Your task to perform on an android device: turn notification dots on Image 0: 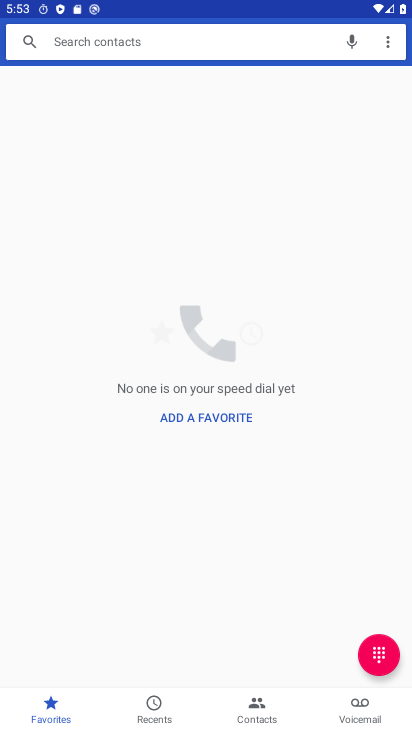
Step 0: press back button
Your task to perform on an android device: turn notification dots on Image 1: 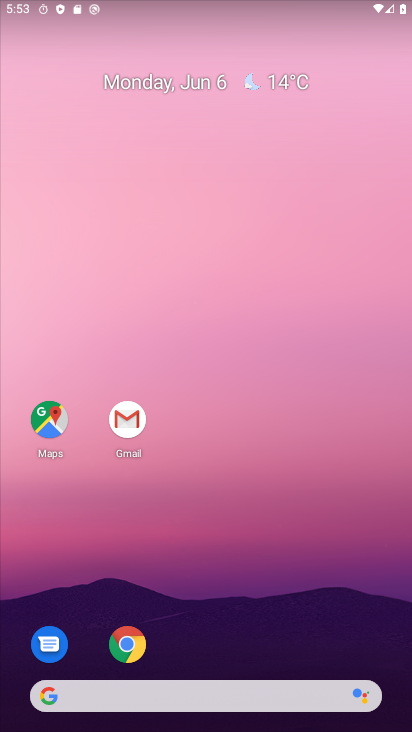
Step 1: drag from (286, 691) to (188, 217)
Your task to perform on an android device: turn notification dots on Image 2: 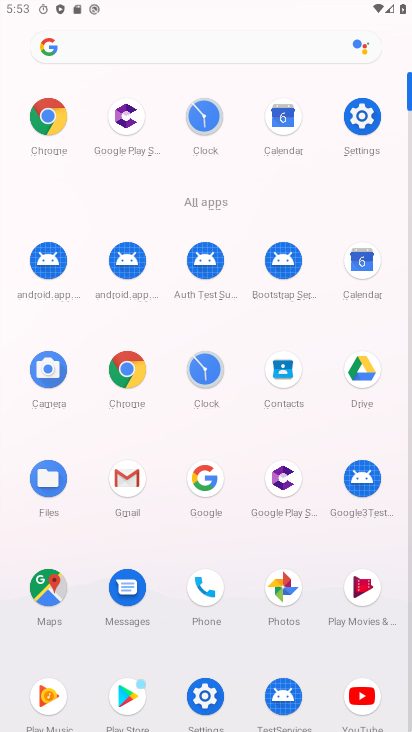
Step 2: click (363, 109)
Your task to perform on an android device: turn notification dots on Image 3: 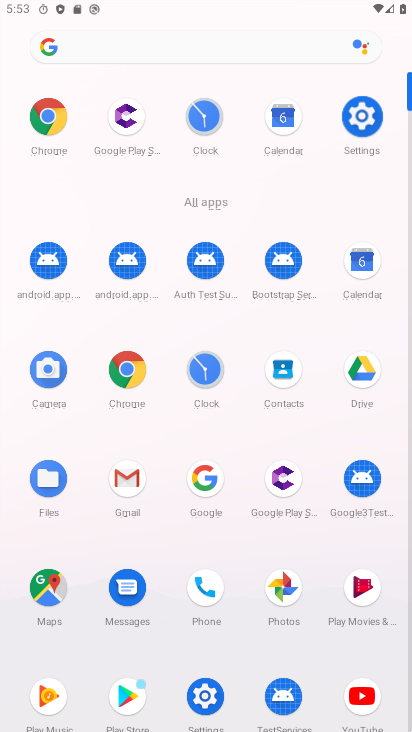
Step 3: click (363, 109)
Your task to perform on an android device: turn notification dots on Image 4: 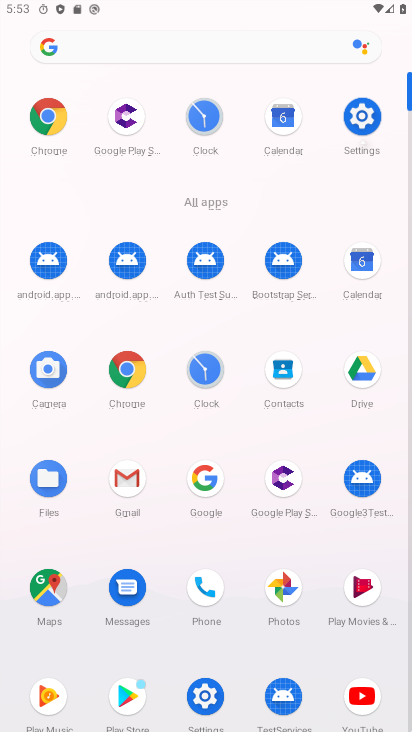
Step 4: click (362, 110)
Your task to perform on an android device: turn notification dots on Image 5: 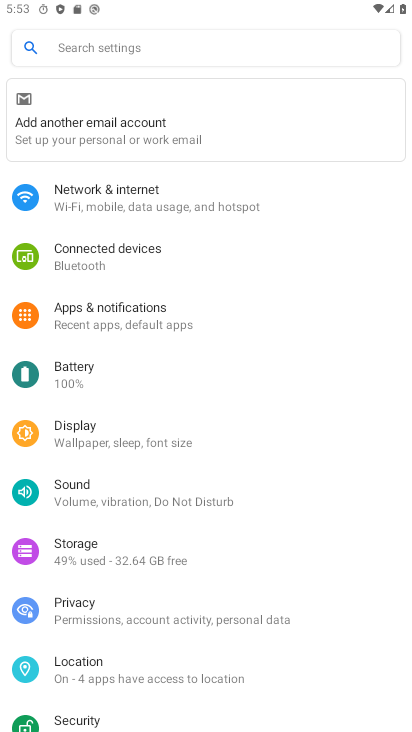
Step 5: click (102, 331)
Your task to perform on an android device: turn notification dots on Image 6: 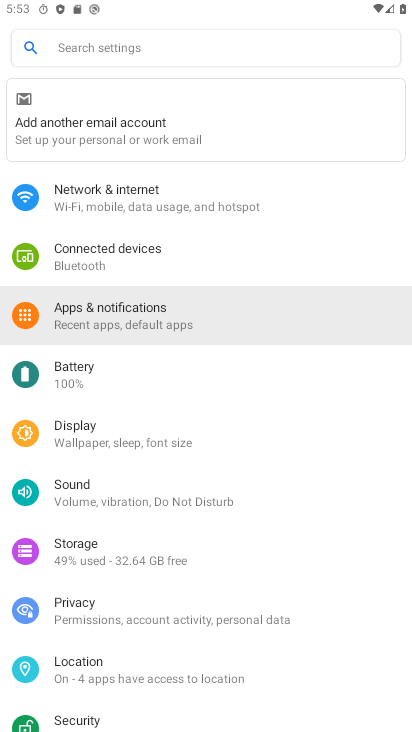
Step 6: click (104, 325)
Your task to perform on an android device: turn notification dots on Image 7: 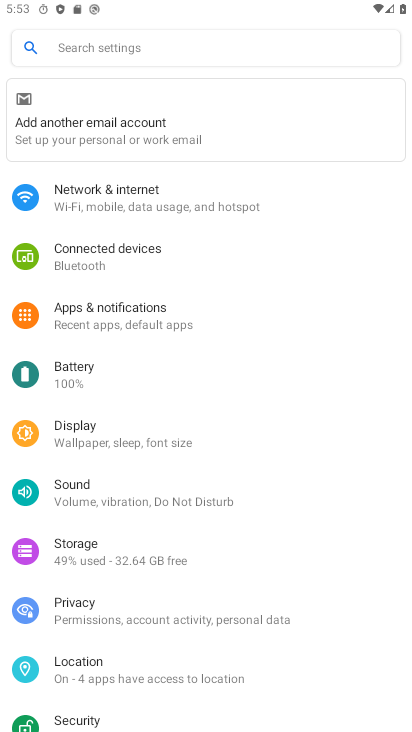
Step 7: click (105, 325)
Your task to perform on an android device: turn notification dots on Image 8: 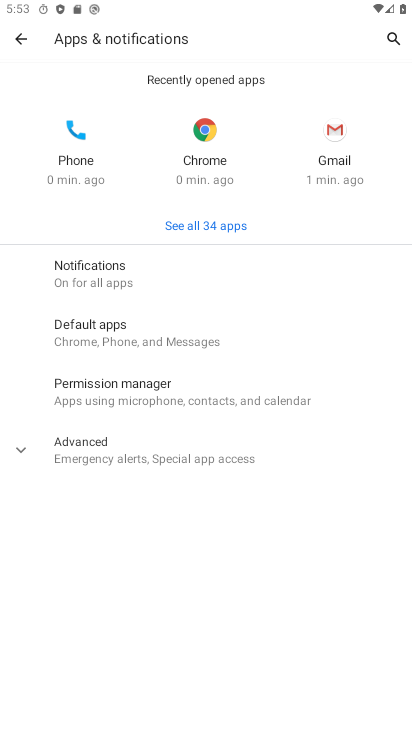
Step 8: click (125, 313)
Your task to perform on an android device: turn notification dots on Image 9: 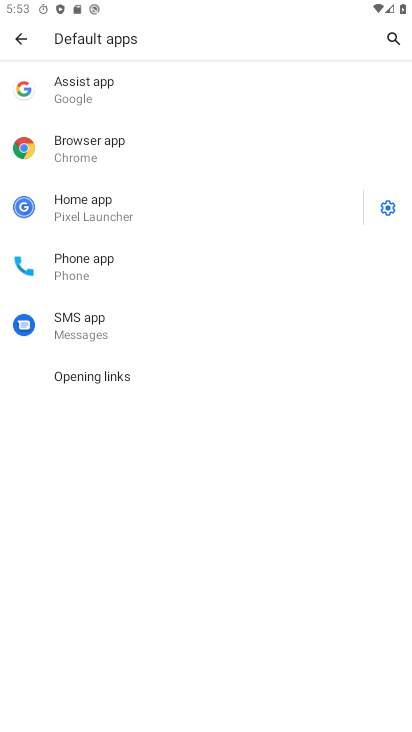
Step 9: click (17, 35)
Your task to perform on an android device: turn notification dots on Image 10: 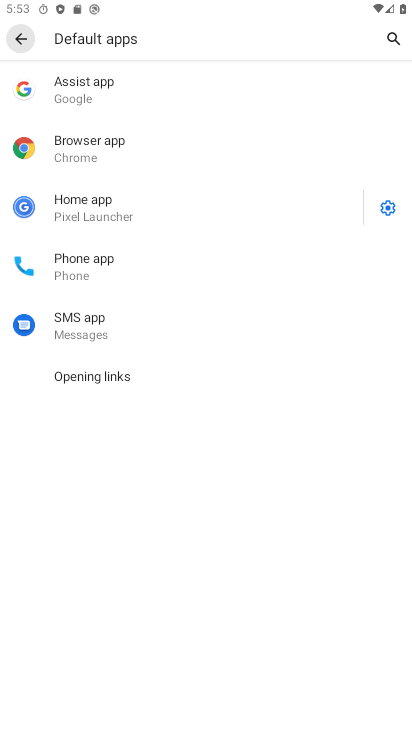
Step 10: click (25, 32)
Your task to perform on an android device: turn notification dots on Image 11: 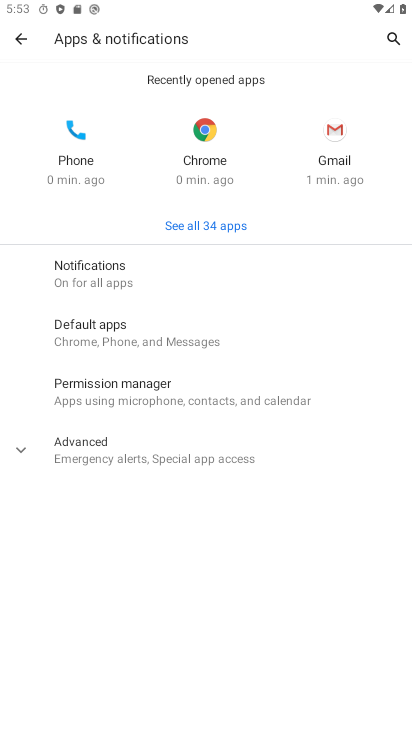
Step 11: click (97, 270)
Your task to perform on an android device: turn notification dots on Image 12: 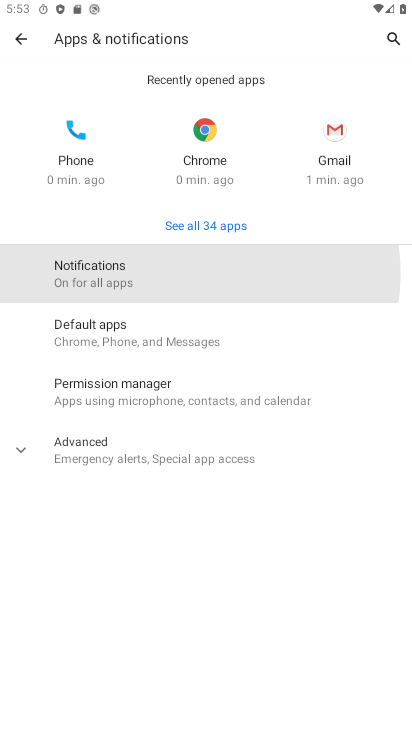
Step 12: click (100, 279)
Your task to perform on an android device: turn notification dots on Image 13: 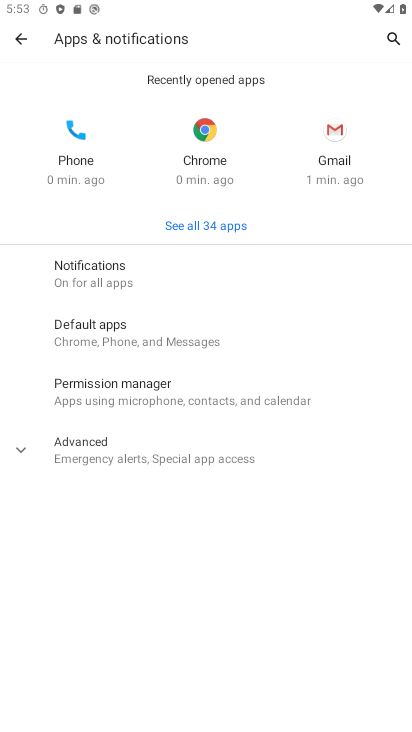
Step 13: click (107, 286)
Your task to perform on an android device: turn notification dots on Image 14: 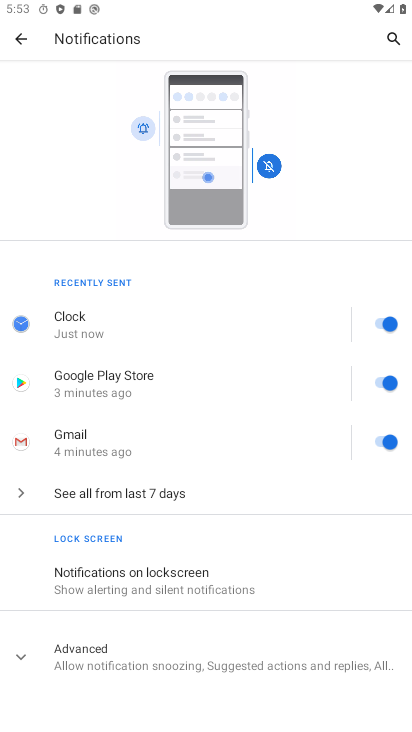
Step 14: drag from (244, 573) to (261, 376)
Your task to perform on an android device: turn notification dots on Image 15: 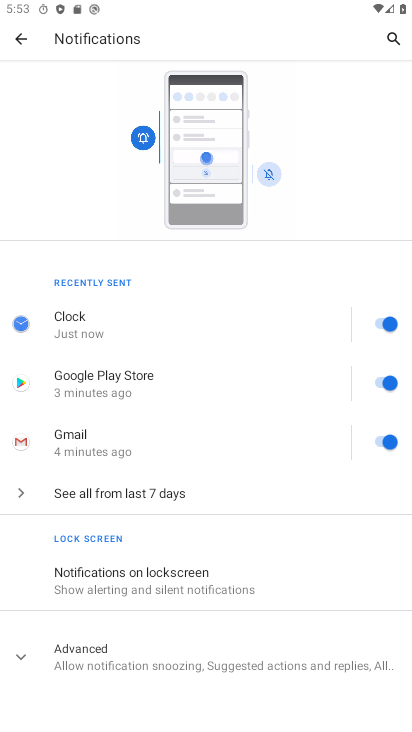
Step 15: click (91, 655)
Your task to perform on an android device: turn notification dots on Image 16: 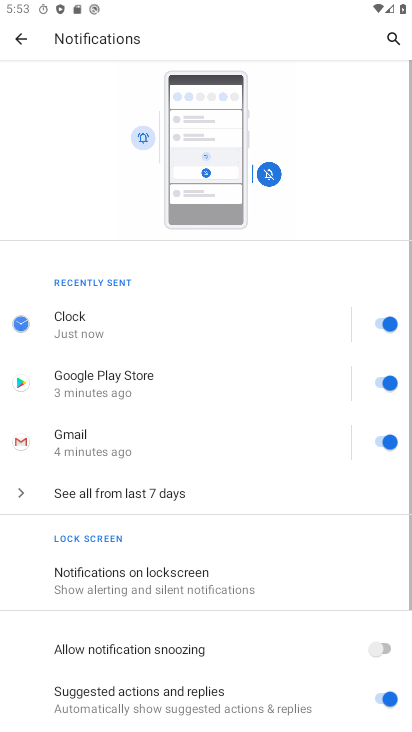
Step 16: drag from (265, 658) to (285, 263)
Your task to perform on an android device: turn notification dots on Image 17: 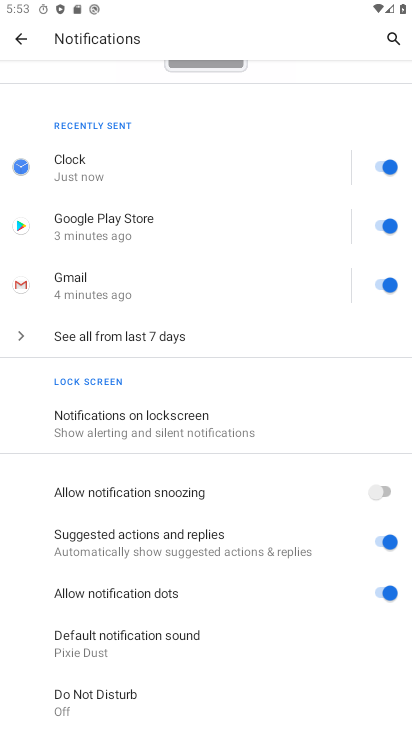
Step 17: click (387, 594)
Your task to perform on an android device: turn notification dots on Image 18: 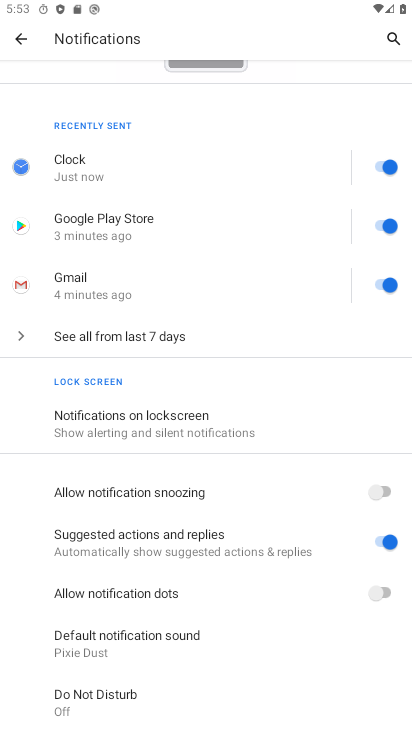
Step 18: click (375, 588)
Your task to perform on an android device: turn notification dots on Image 19: 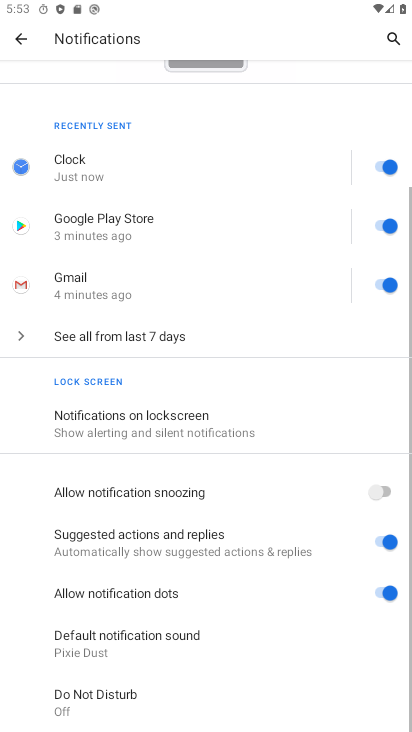
Step 19: task complete